Your task to perform on an android device: check android version Image 0: 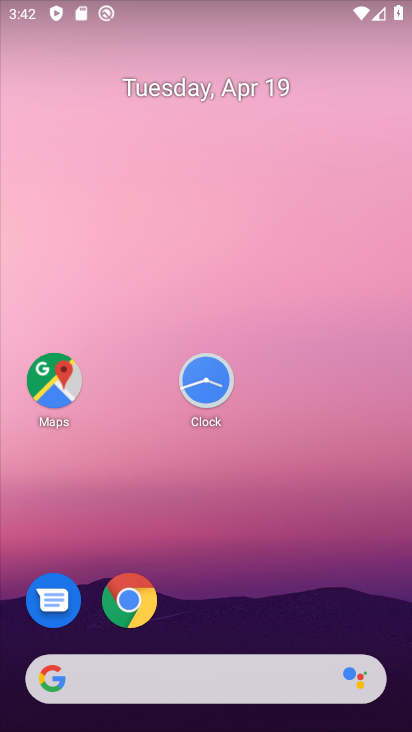
Step 0: click (172, 287)
Your task to perform on an android device: check android version Image 1: 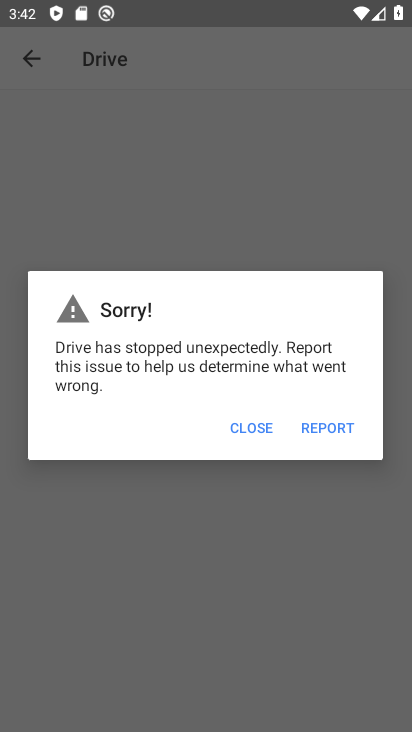
Step 1: click (249, 422)
Your task to perform on an android device: check android version Image 2: 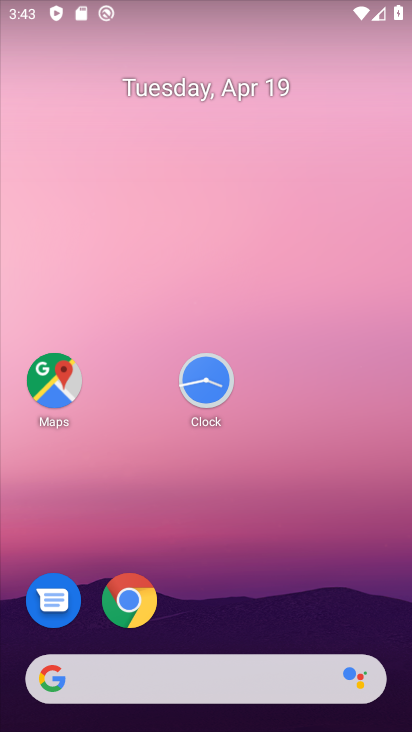
Step 2: drag from (364, 693) to (167, 181)
Your task to perform on an android device: check android version Image 3: 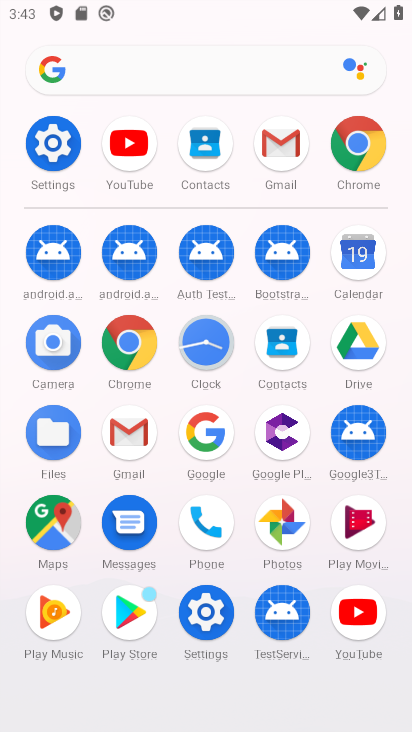
Step 3: click (59, 139)
Your task to perform on an android device: check android version Image 4: 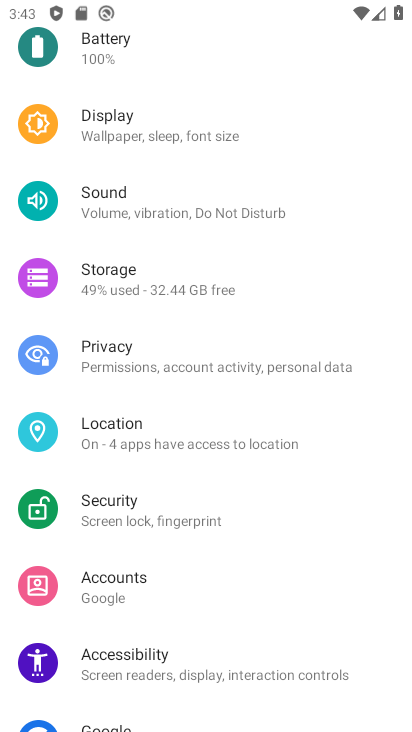
Step 4: drag from (248, 584) to (188, 264)
Your task to perform on an android device: check android version Image 5: 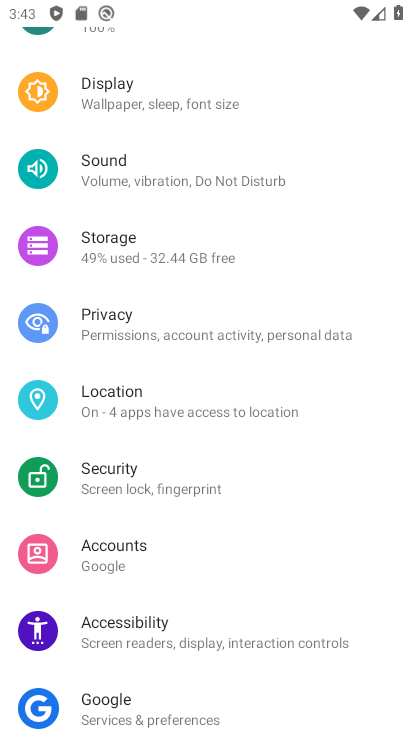
Step 5: drag from (169, 633) to (119, 226)
Your task to perform on an android device: check android version Image 6: 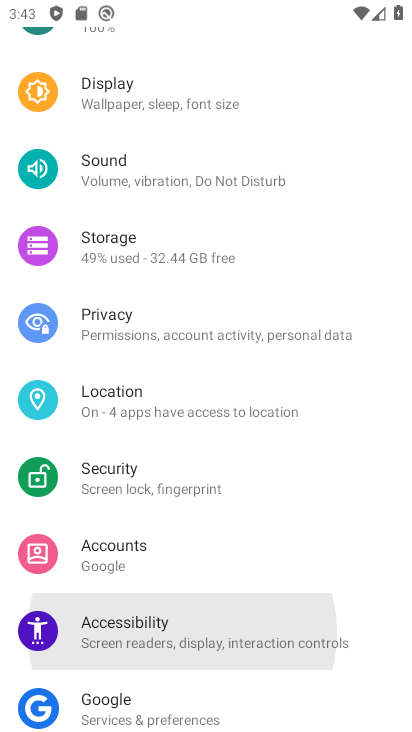
Step 6: drag from (293, 574) to (213, 114)
Your task to perform on an android device: check android version Image 7: 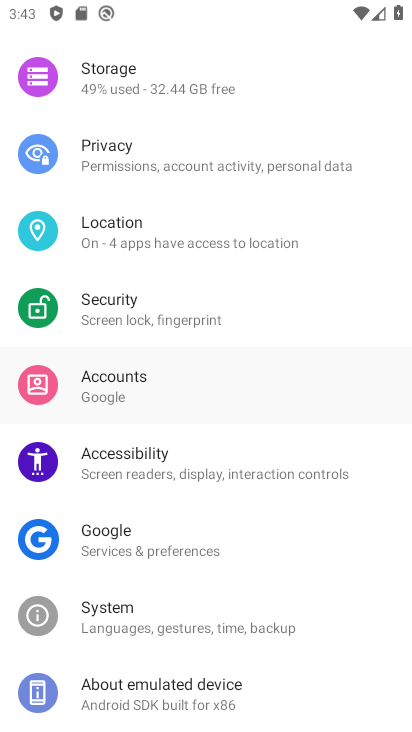
Step 7: drag from (202, 337) to (176, 177)
Your task to perform on an android device: check android version Image 8: 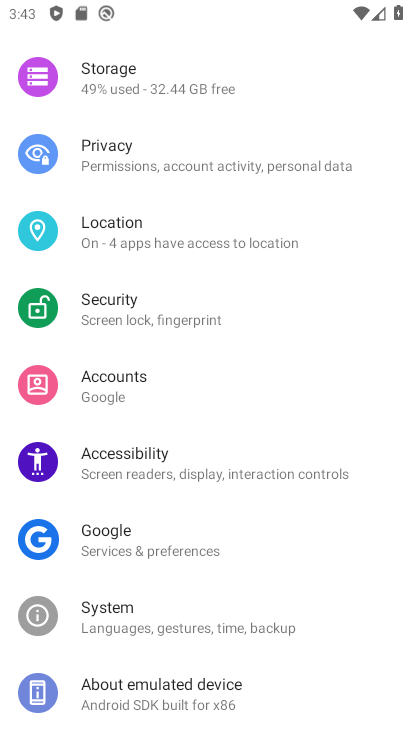
Step 8: drag from (222, 492) to (209, 169)
Your task to perform on an android device: check android version Image 9: 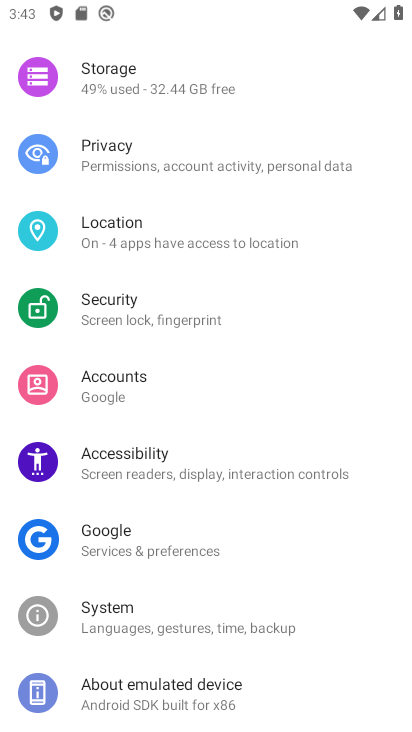
Step 9: drag from (175, 354) to (192, 478)
Your task to perform on an android device: check android version Image 10: 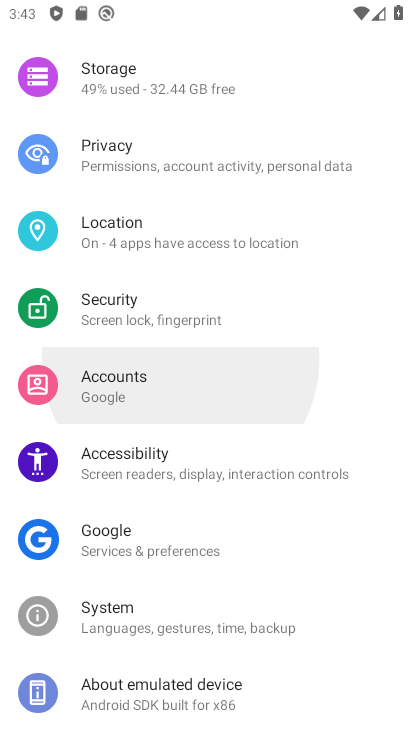
Step 10: drag from (220, 531) to (275, 655)
Your task to perform on an android device: check android version Image 11: 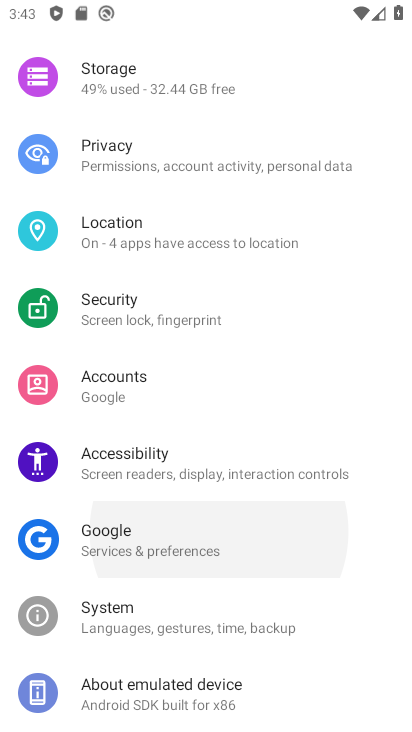
Step 11: drag from (210, 355) to (277, 635)
Your task to perform on an android device: check android version Image 12: 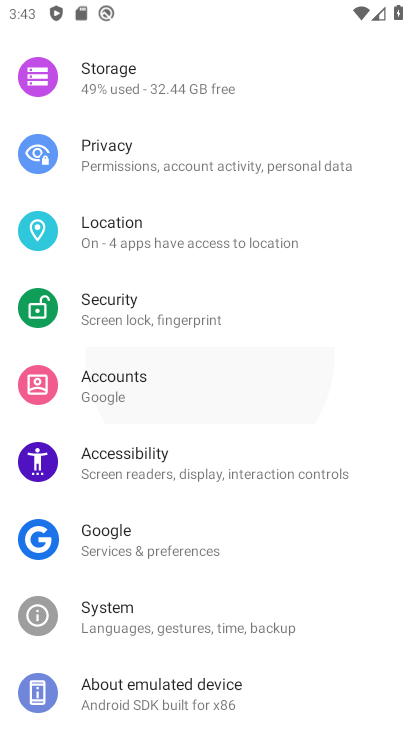
Step 12: drag from (209, 385) to (294, 669)
Your task to perform on an android device: check android version Image 13: 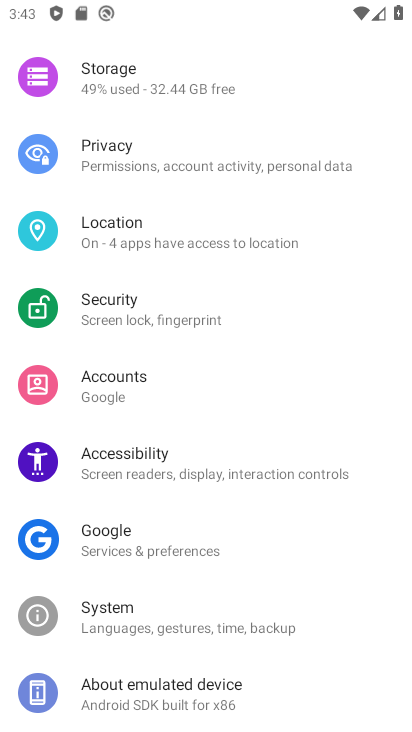
Step 13: click (133, 698)
Your task to perform on an android device: check android version Image 14: 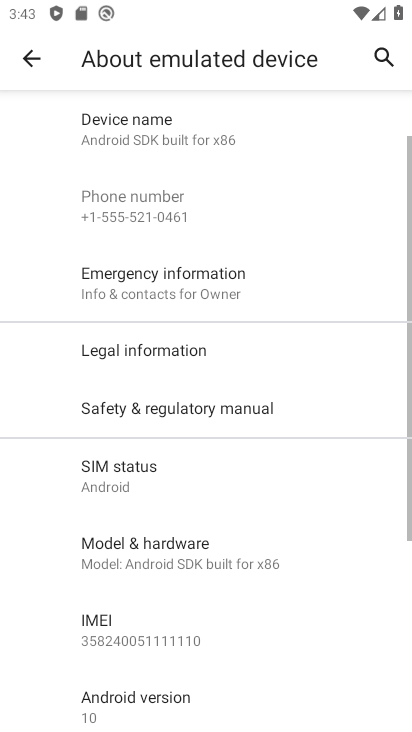
Step 14: drag from (119, 630) to (151, 209)
Your task to perform on an android device: check android version Image 15: 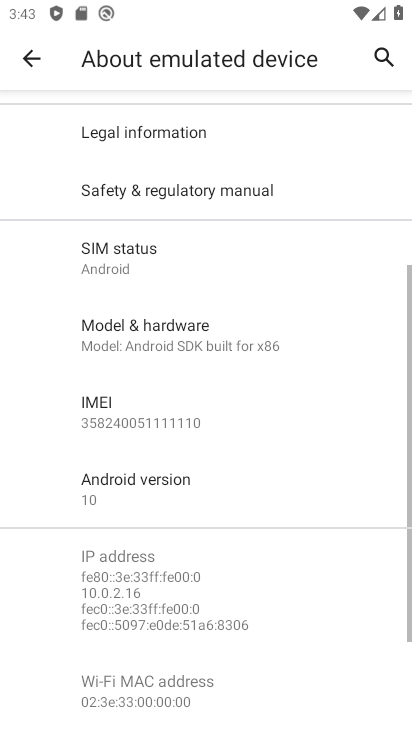
Step 15: drag from (207, 453) to (215, 209)
Your task to perform on an android device: check android version Image 16: 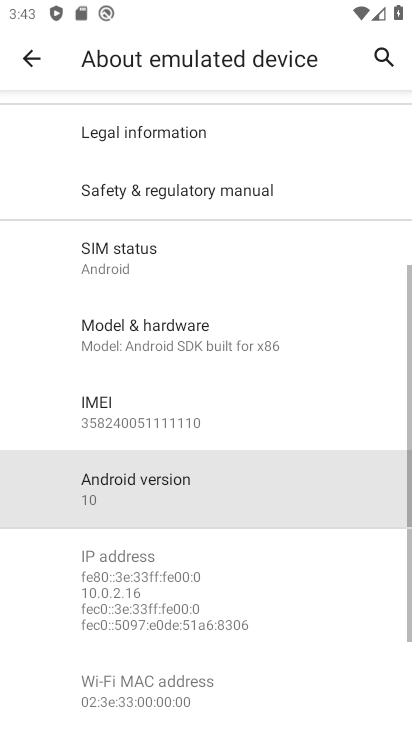
Step 16: drag from (191, 497) to (191, 228)
Your task to perform on an android device: check android version Image 17: 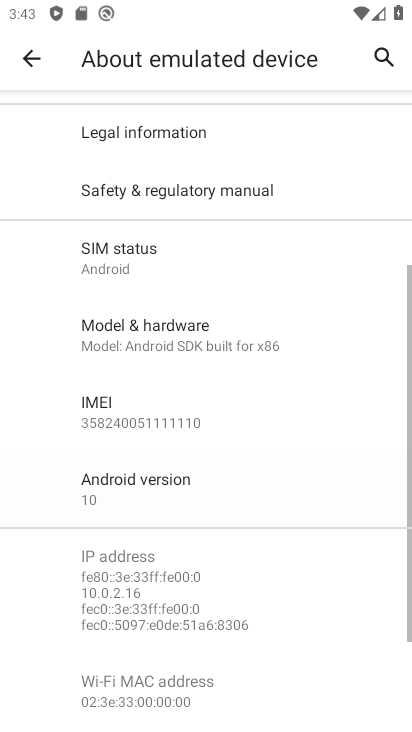
Step 17: drag from (214, 466) to (214, 233)
Your task to perform on an android device: check android version Image 18: 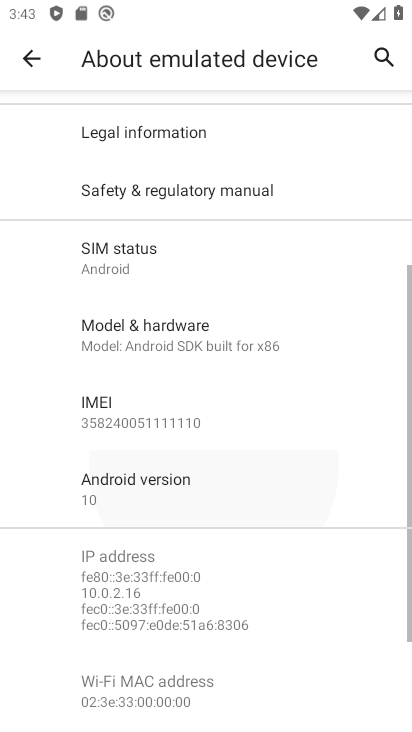
Step 18: drag from (248, 546) to (253, 649)
Your task to perform on an android device: check android version Image 19: 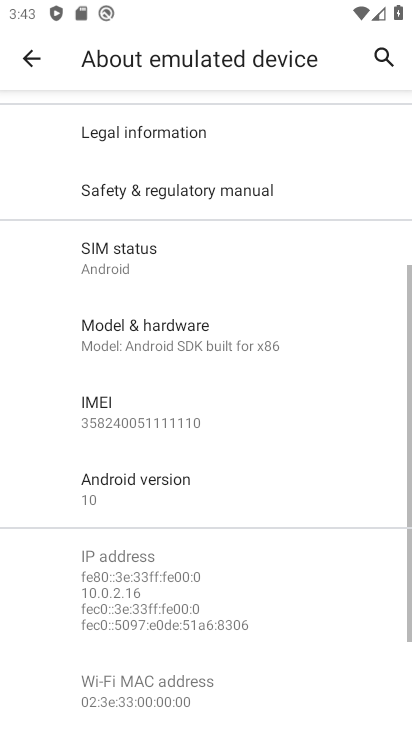
Step 19: drag from (246, 477) to (284, 623)
Your task to perform on an android device: check android version Image 20: 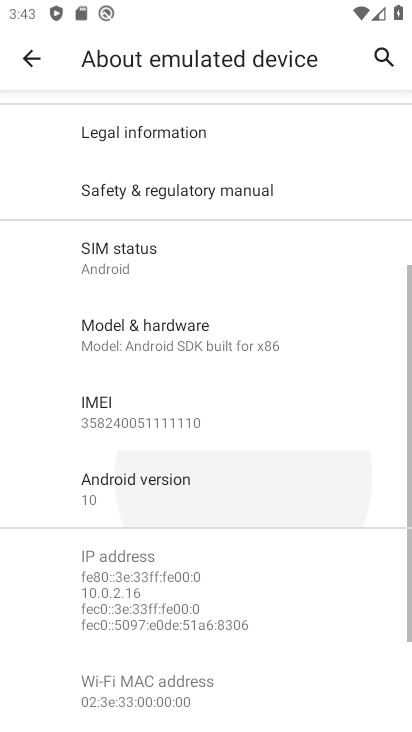
Step 20: click (321, 693)
Your task to perform on an android device: check android version Image 21: 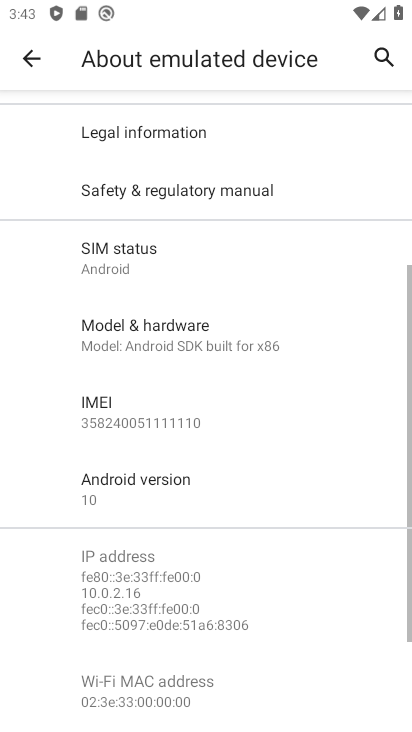
Step 21: drag from (220, 554) to (240, 696)
Your task to perform on an android device: check android version Image 22: 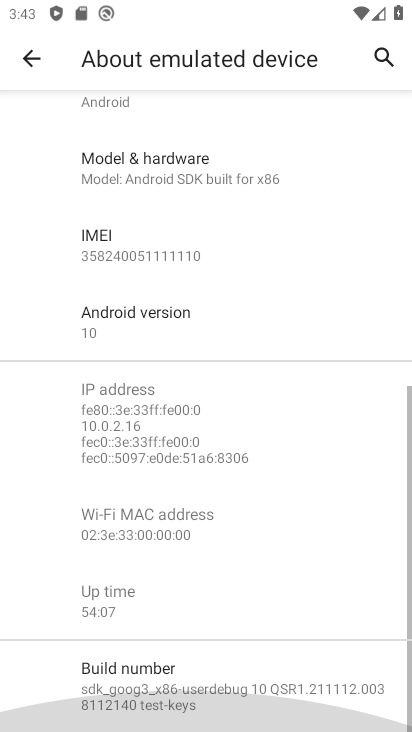
Step 22: drag from (244, 557) to (262, 636)
Your task to perform on an android device: check android version Image 23: 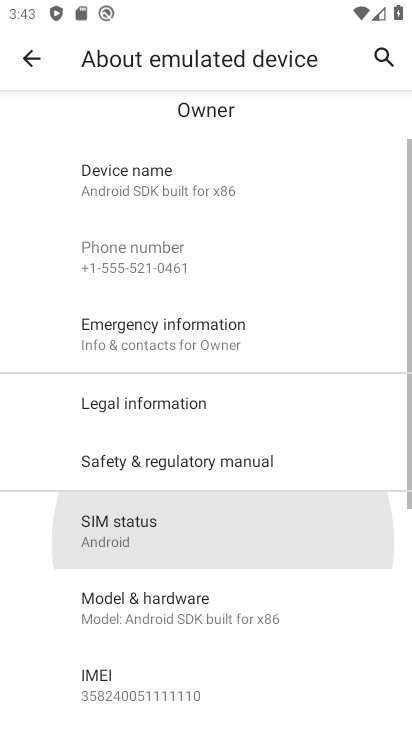
Step 23: click (298, 531)
Your task to perform on an android device: check android version Image 24: 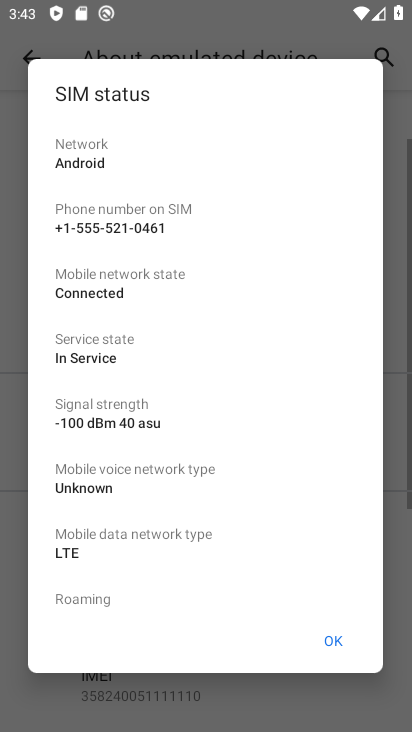
Step 24: click (394, 474)
Your task to perform on an android device: check android version Image 25: 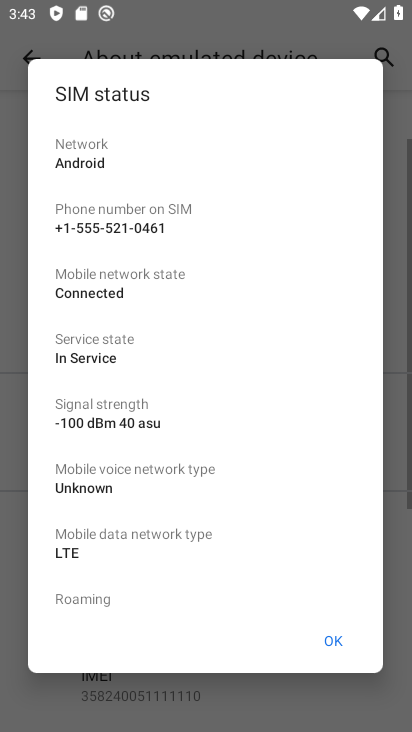
Step 25: click (326, 641)
Your task to perform on an android device: check android version Image 26: 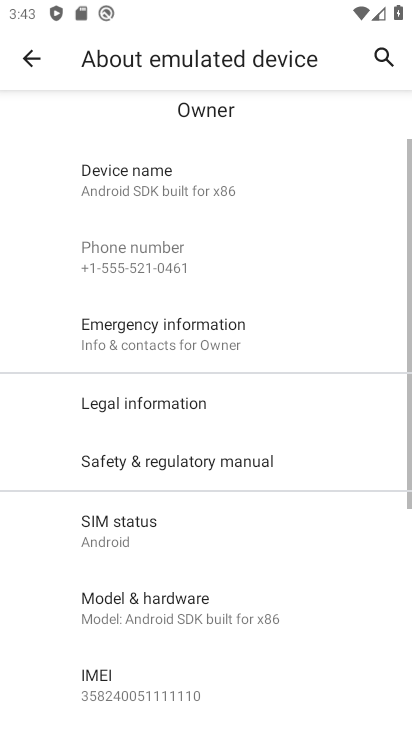
Step 26: task complete